Your task to perform on an android device: Is it going to rain this weekend? Image 0: 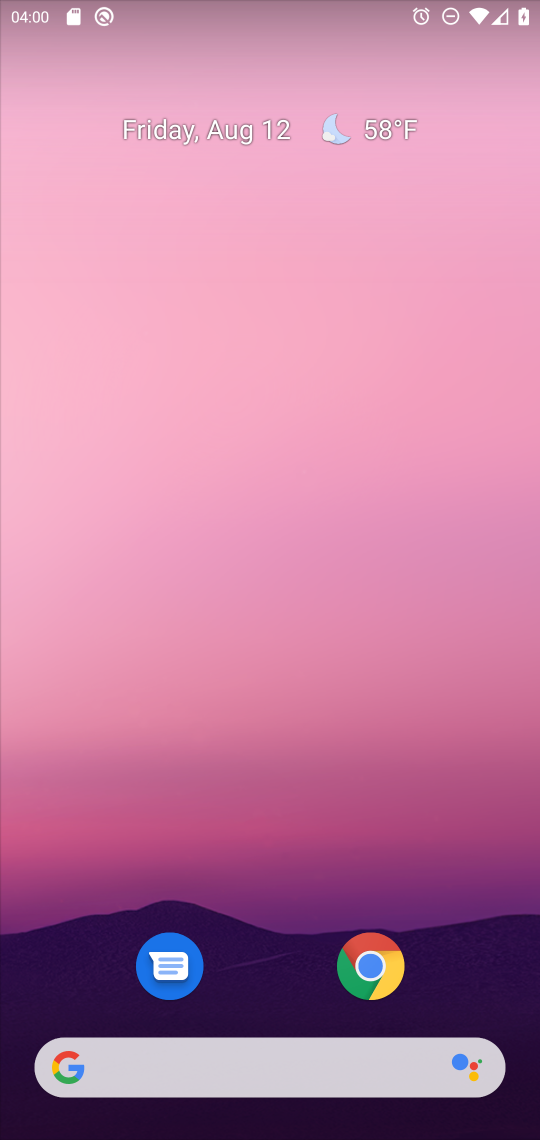
Step 0: click (247, 938)
Your task to perform on an android device: Is it going to rain this weekend? Image 1: 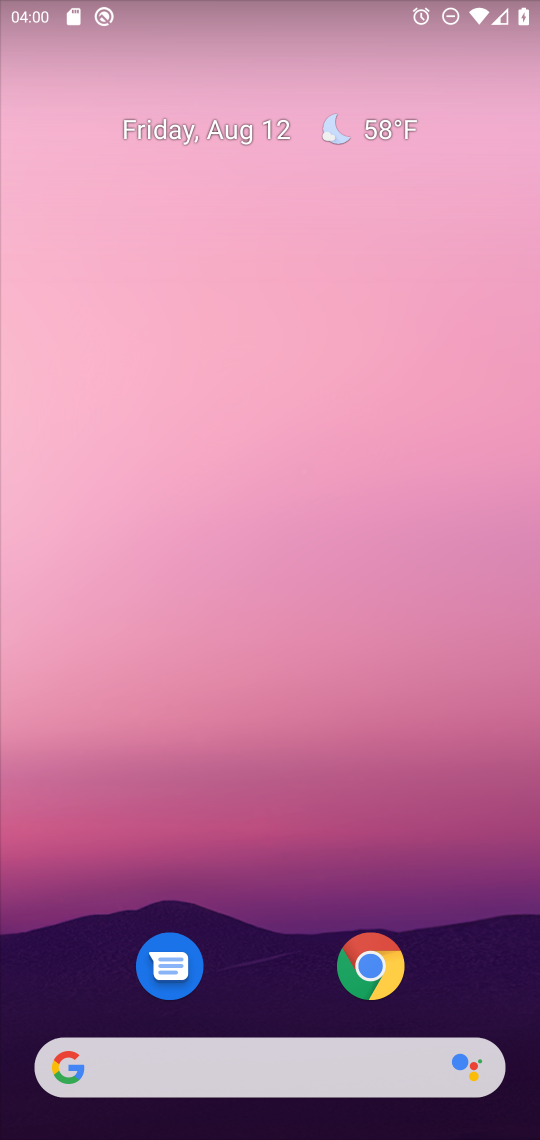
Step 1: click (369, 138)
Your task to perform on an android device: Is it going to rain this weekend? Image 2: 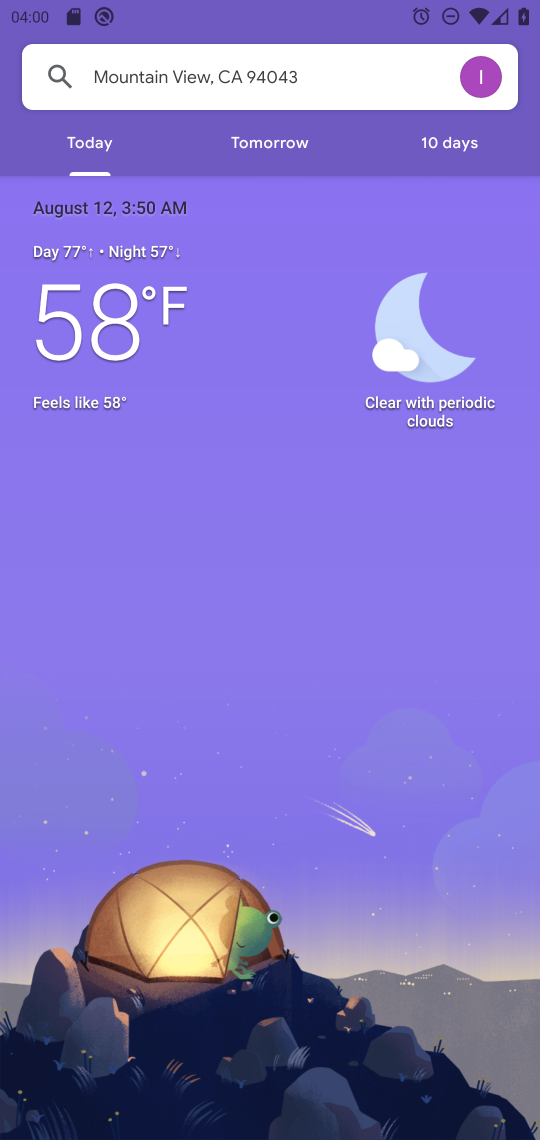
Step 2: click (430, 150)
Your task to perform on an android device: Is it going to rain this weekend? Image 3: 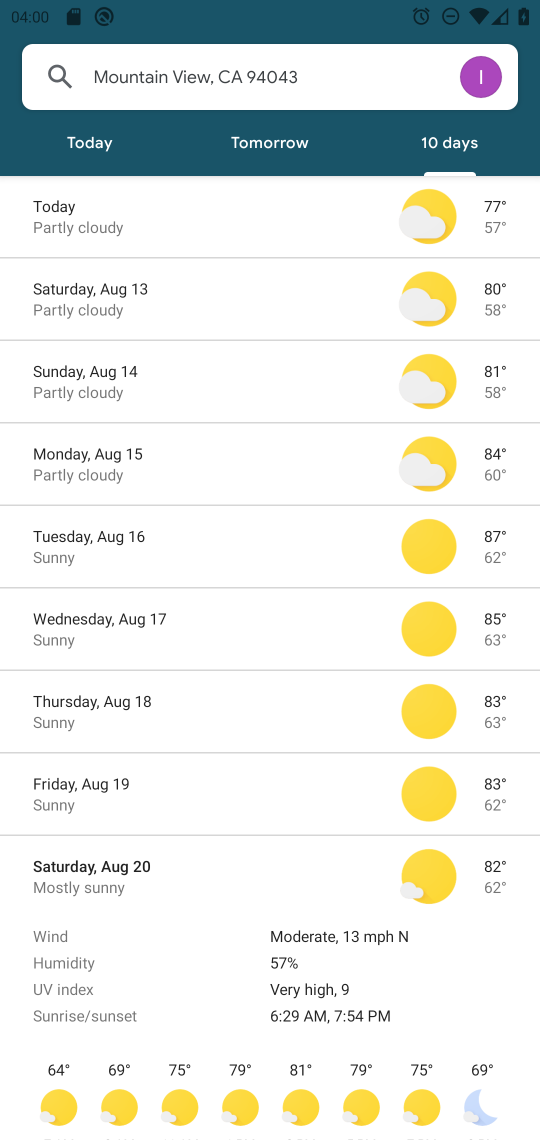
Step 3: click (127, 863)
Your task to perform on an android device: Is it going to rain this weekend? Image 4: 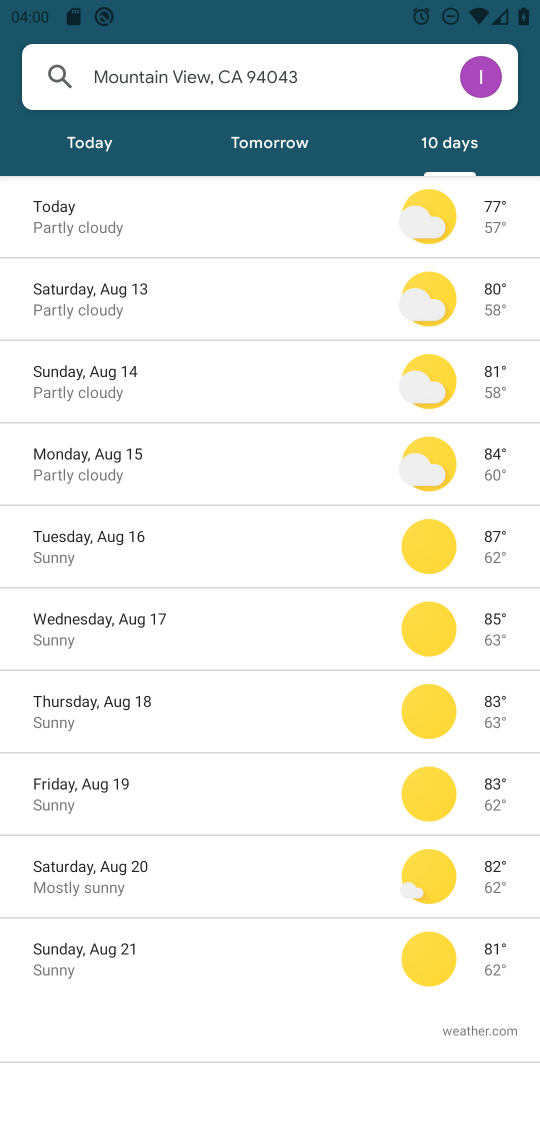
Step 4: task complete